Your task to perform on an android device: Go to internet settings Image 0: 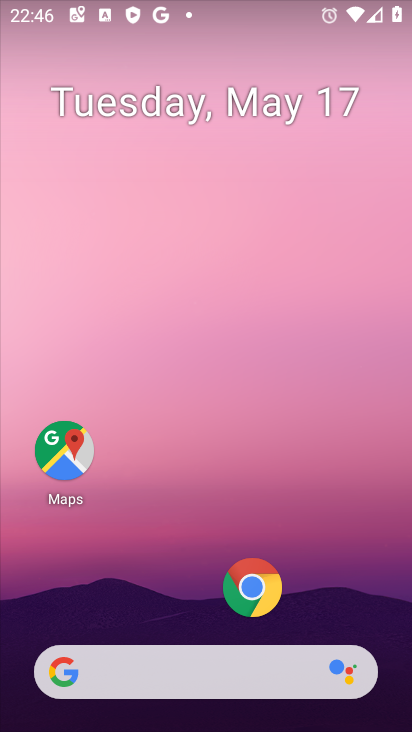
Step 0: drag from (182, 563) to (219, 139)
Your task to perform on an android device: Go to internet settings Image 1: 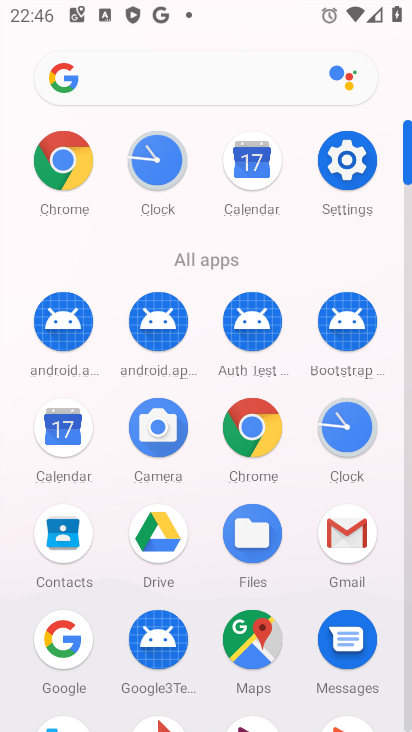
Step 1: click (347, 161)
Your task to perform on an android device: Go to internet settings Image 2: 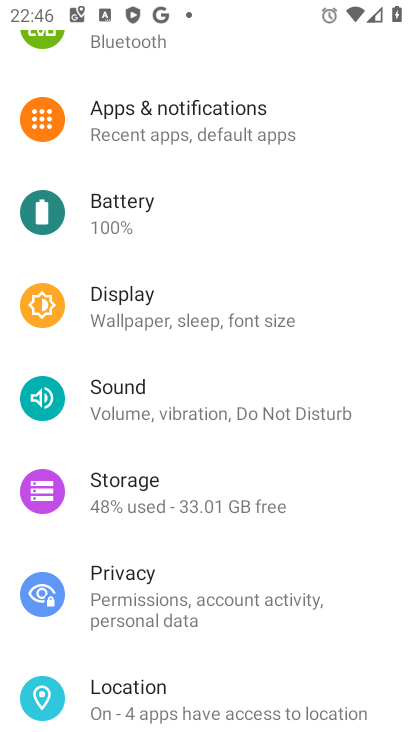
Step 2: drag from (221, 158) to (216, 656)
Your task to perform on an android device: Go to internet settings Image 3: 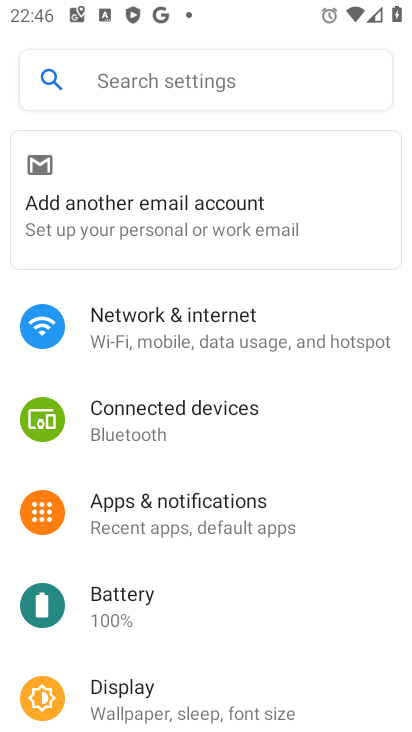
Step 3: click (224, 345)
Your task to perform on an android device: Go to internet settings Image 4: 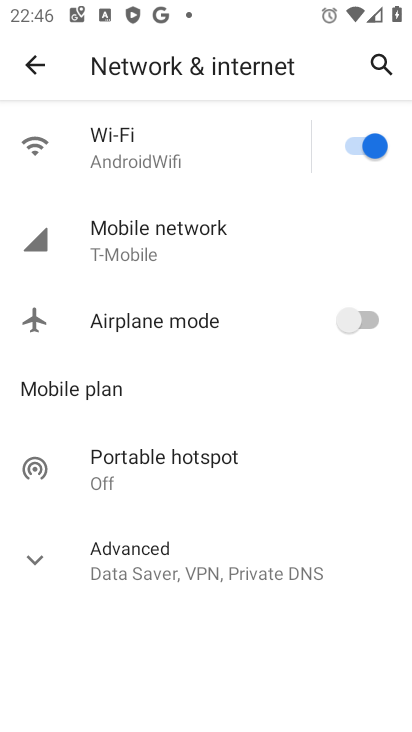
Step 4: click (130, 247)
Your task to perform on an android device: Go to internet settings Image 5: 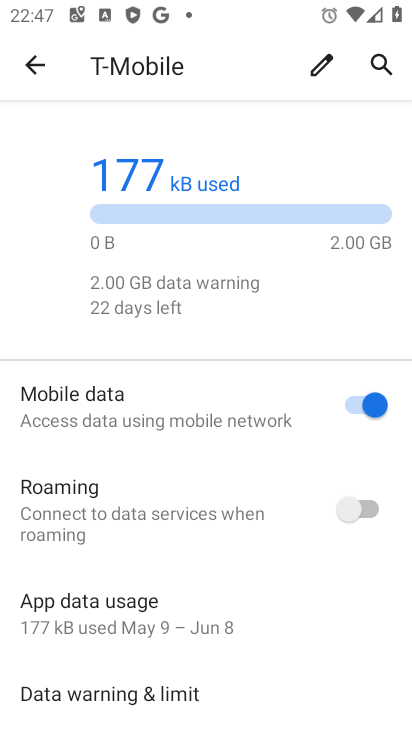
Step 5: task complete